Your task to perform on an android device: manage bookmarks in the chrome app Image 0: 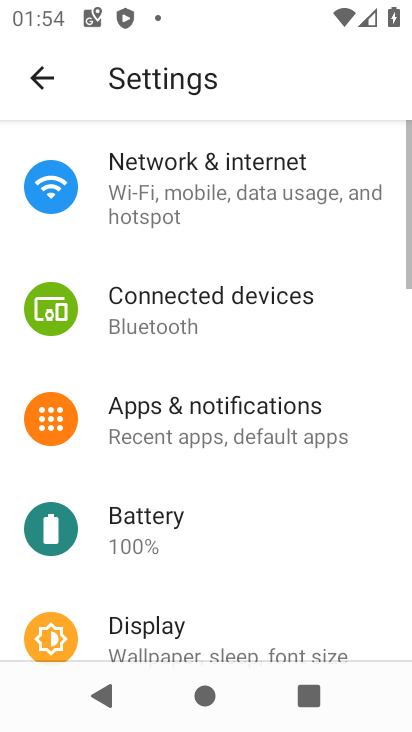
Step 0: press home button
Your task to perform on an android device: manage bookmarks in the chrome app Image 1: 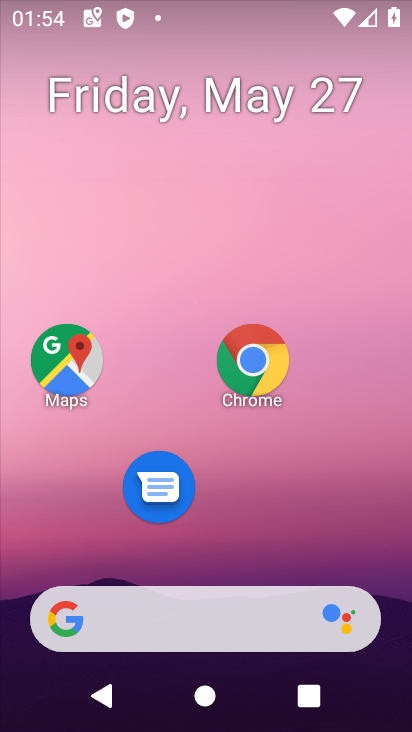
Step 1: click (260, 355)
Your task to perform on an android device: manage bookmarks in the chrome app Image 2: 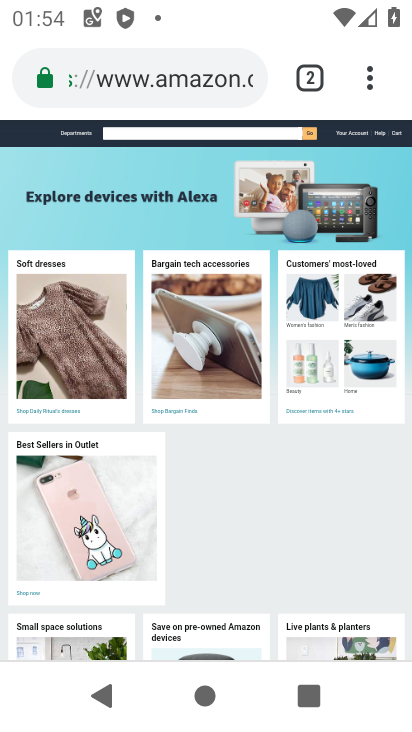
Step 2: click (358, 81)
Your task to perform on an android device: manage bookmarks in the chrome app Image 3: 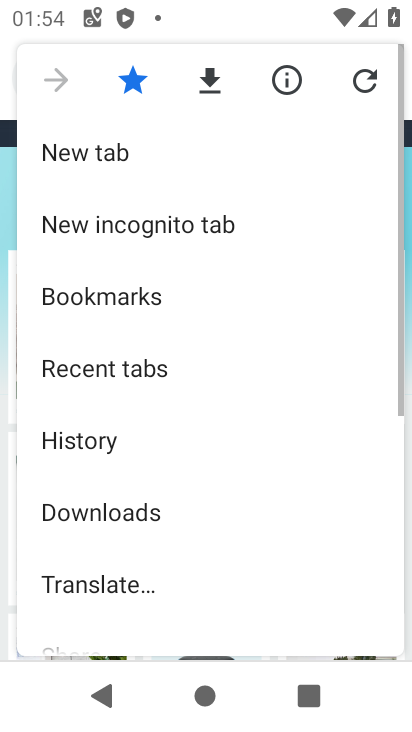
Step 3: drag from (250, 495) to (182, 78)
Your task to perform on an android device: manage bookmarks in the chrome app Image 4: 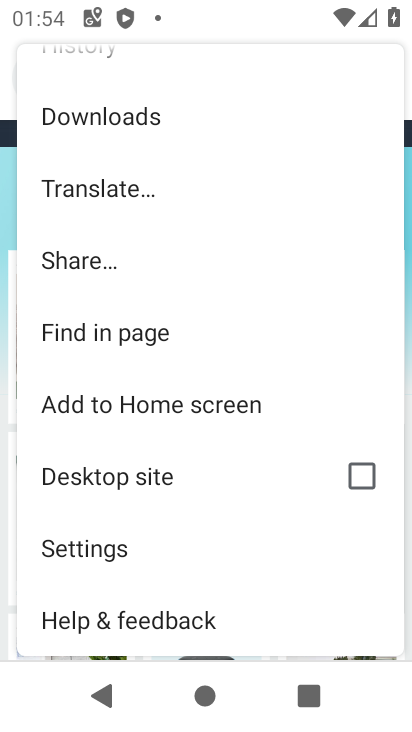
Step 4: drag from (157, 156) to (254, 498)
Your task to perform on an android device: manage bookmarks in the chrome app Image 5: 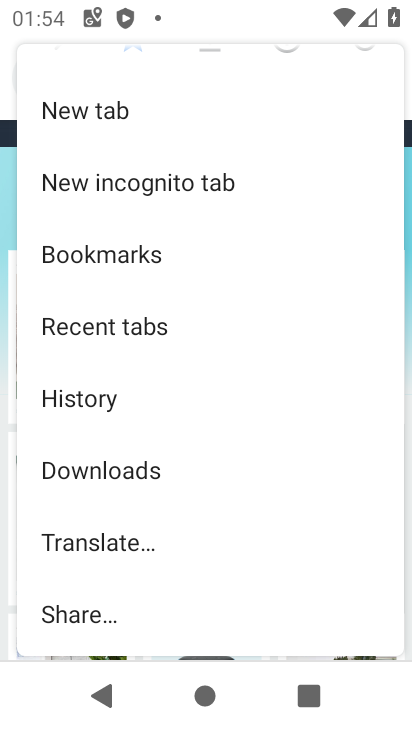
Step 5: click (130, 266)
Your task to perform on an android device: manage bookmarks in the chrome app Image 6: 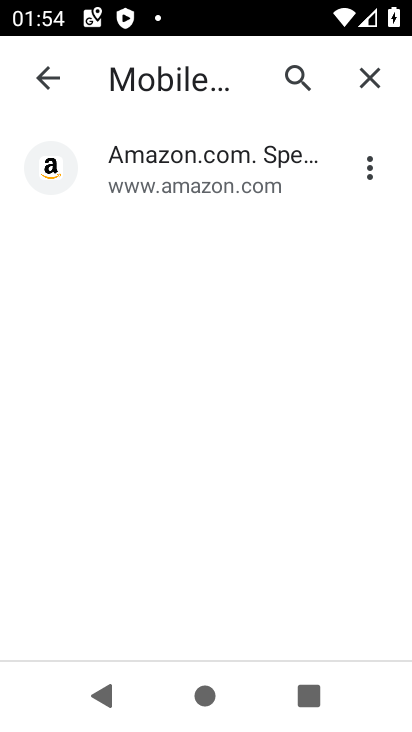
Step 6: click (366, 169)
Your task to perform on an android device: manage bookmarks in the chrome app Image 7: 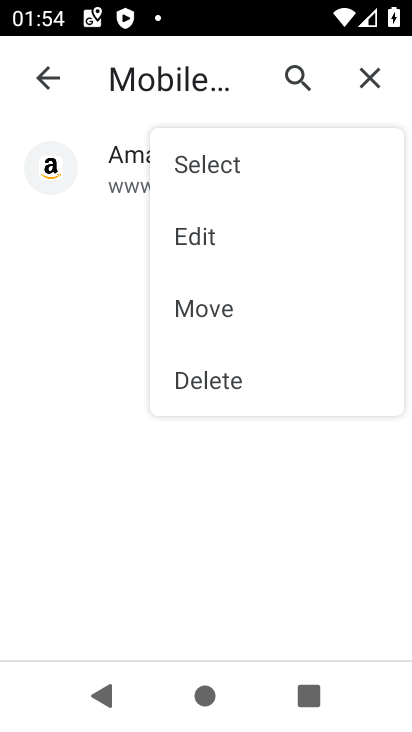
Step 7: click (234, 388)
Your task to perform on an android device: manage bookmarks in the chrome app Image 8: 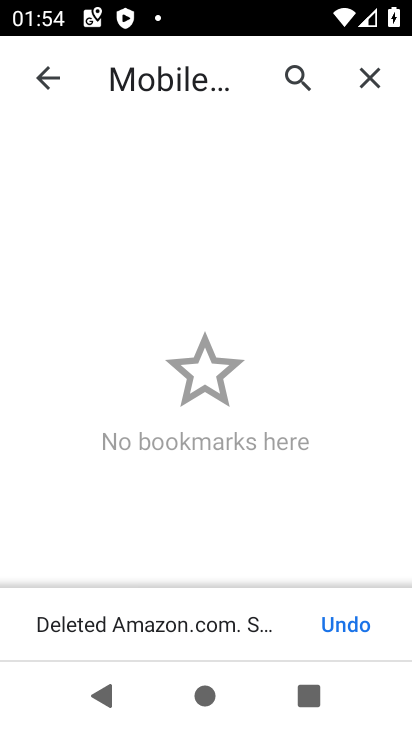
Step 8: task complete